Your task to perform on an android device: make emails show in primary in the gmail app Image 0: 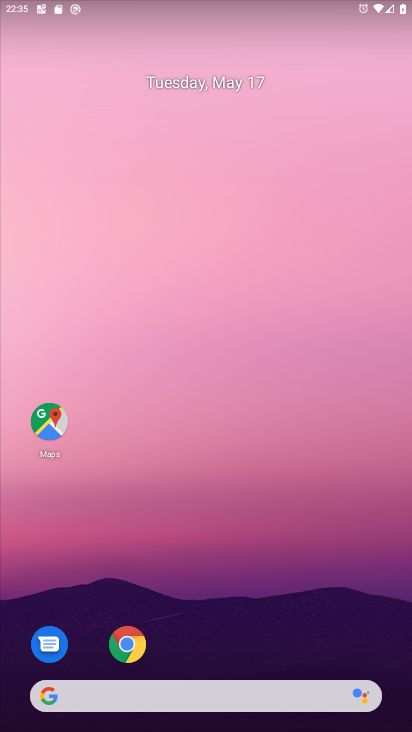
Step 0: drag from (221, 640) to (225, 131)
Your task to perform on an android device: make emails show in primary in the gmail app Image 1: 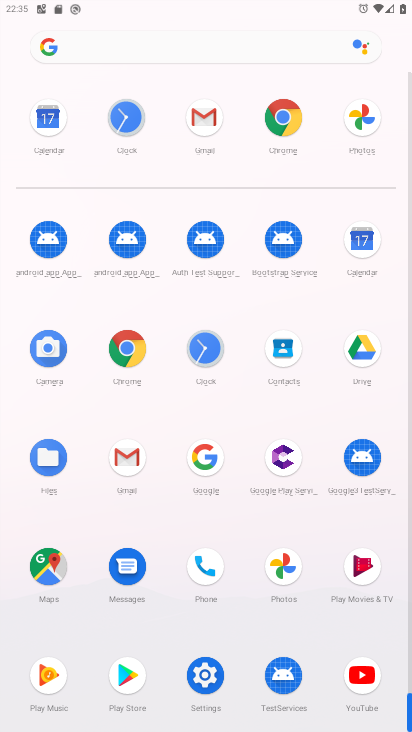
Step 1: click (126, 452)
Your task to perform on an android device: make emails show in primary in the gmail app Image 2: 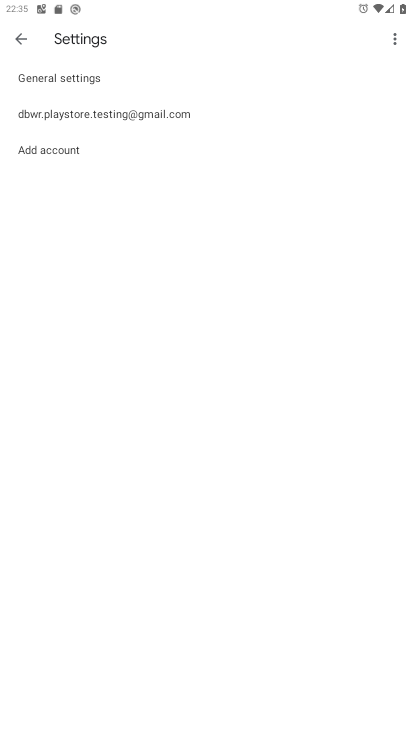
Step 2: click (146, 108)
Your task to perform on an android device: make emails show in primary in the gmail app Image 3: 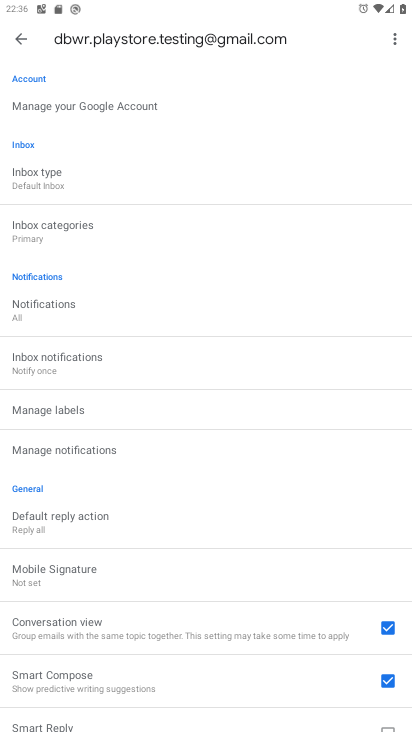
Step 3: click (65, 176)
Your task to perform on an android device: make emails show in primary in the gmail app Image 4: 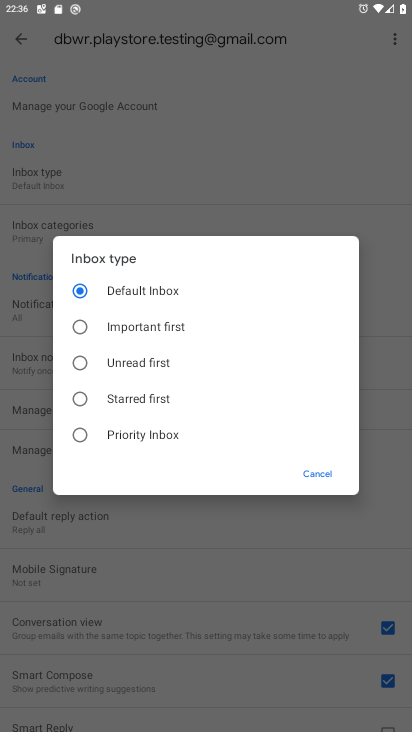
Step 4: click (131, 287)
Your task to perform on an android device: make emails show in primary in the gmail app Image 5: 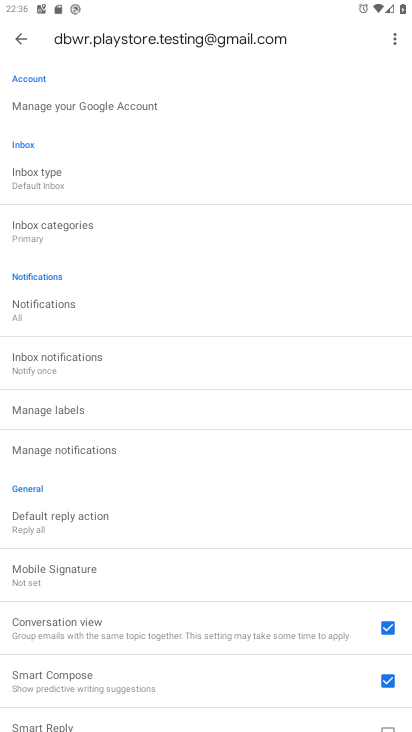
Step 5: task complete